Your task to perform on an android device: open device folders in google photos Image 0: 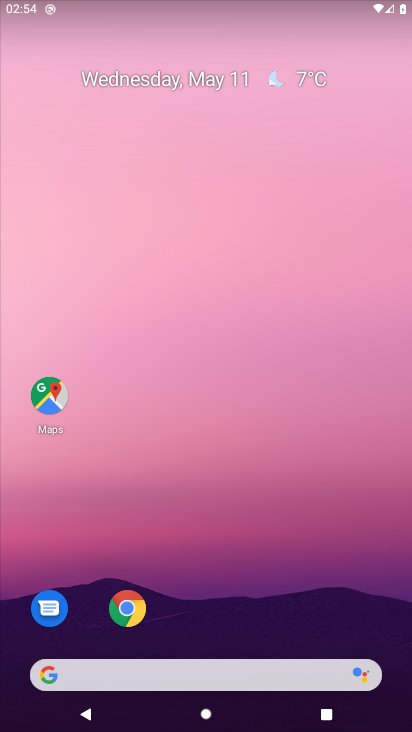
Step 0: press home button
Your task to perform on an android device: open device folders in google photos Image 1: 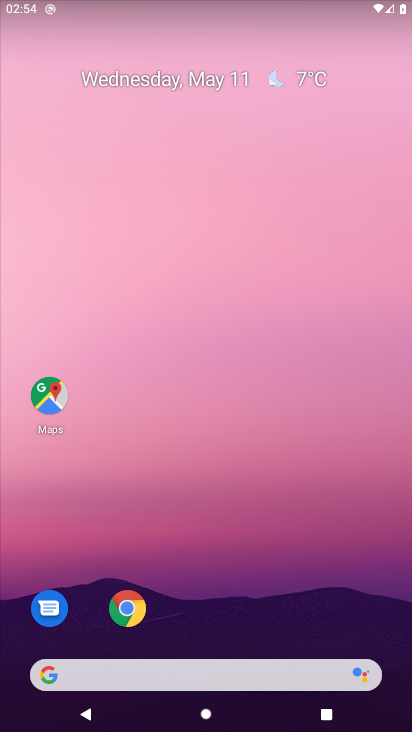
Step 1: drag from (242, 644) to (315, 90)
Your task to perform on an android device: open device folders in google photos Image 2: 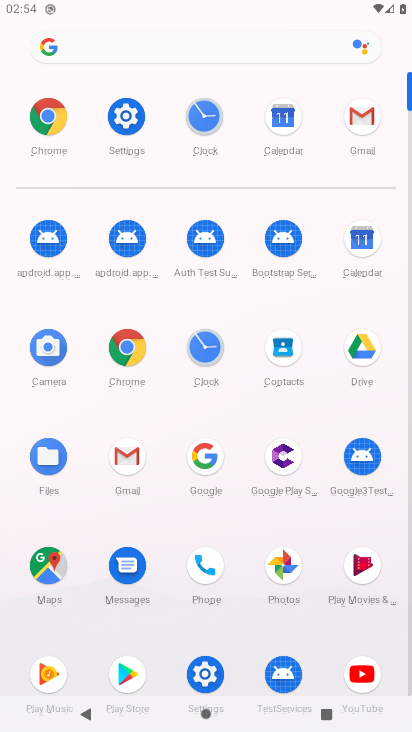
Step 2: click (279, 562)
Your task to perform on an android device: open device folders in google photos Image 3: 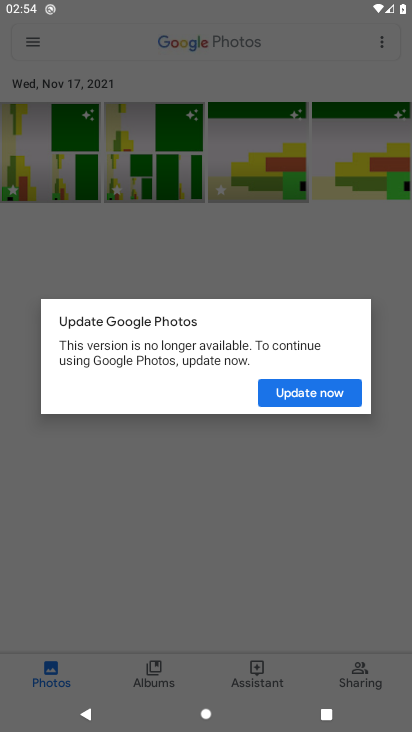
Step 3: click (298, 398)
Your task to perform on an android device: open device folders in google photos Image 4: 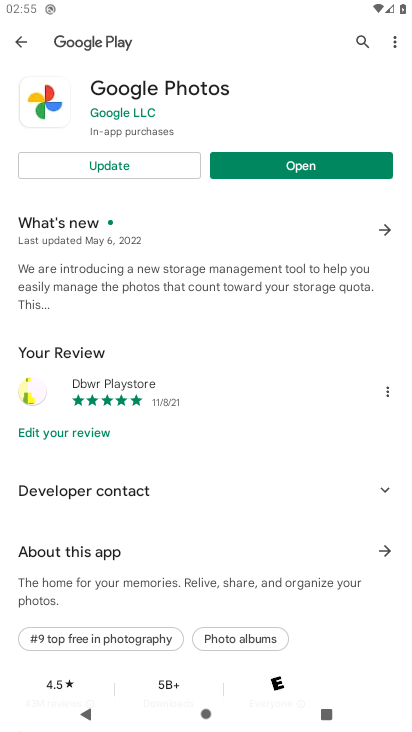
Step 4: click (124, 156)
Your task to perform on an android device: open device folders in google photos Image 5: 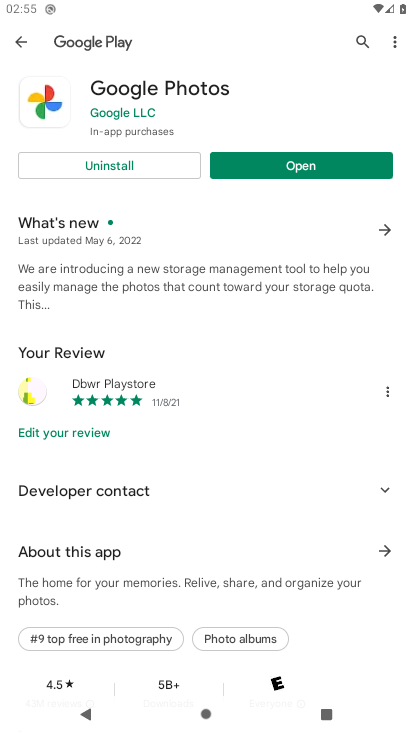
Step 5: click (303, 162)
Your task to perform on an android device: open device folders in google photos Image 6: 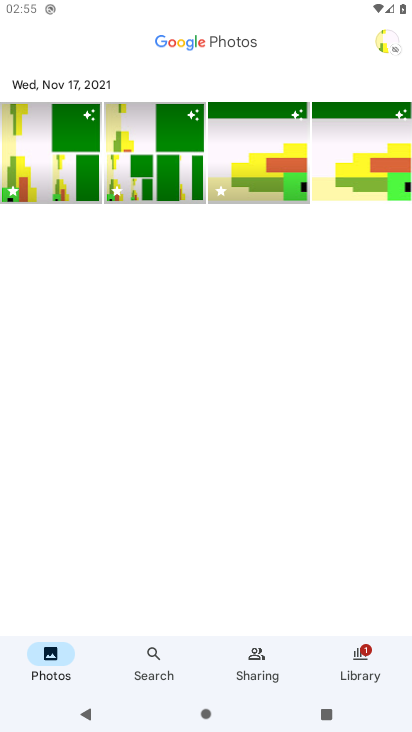
Step 6: click (154, 662)
Your task to perform on an android device: open device folders in google photos Image 7: 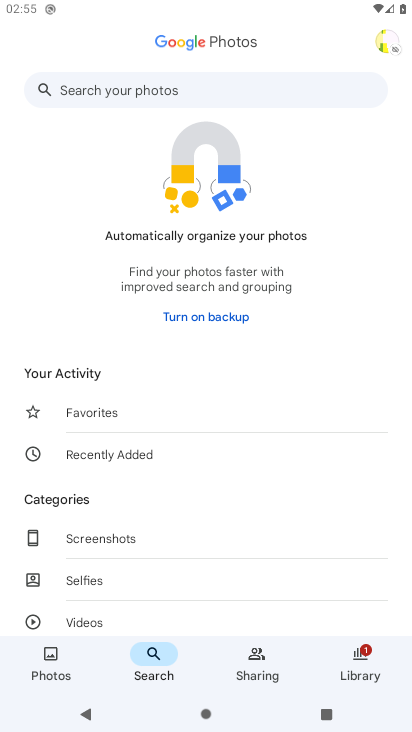
Step 7: click (161, 79)
Your task to perform on an android device: open device folders in google photos Image 8: 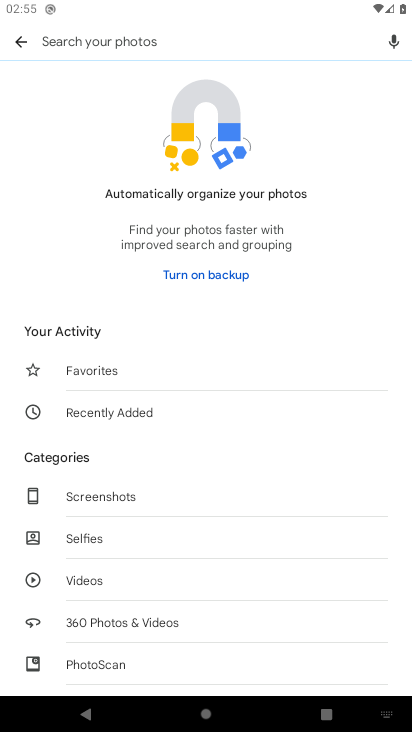
Step 8: type "device"
Your task to perform on an android device: open device folders in google photos Image 9: 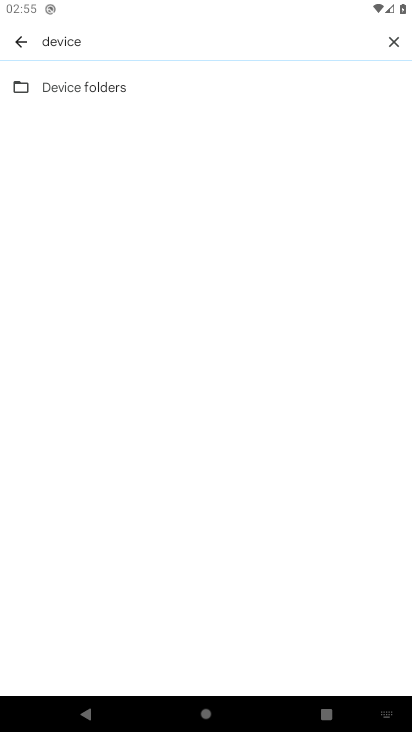
Step 9: click (114, 79)
Your task to perform on an android device: open device folders in google photos Image 10: 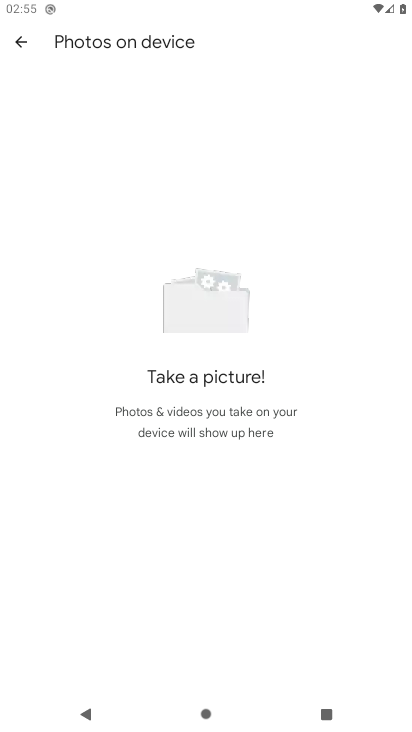
Step 10: task complete